Your task to perform on an android device: Find coffee shops on Maps Image 0: 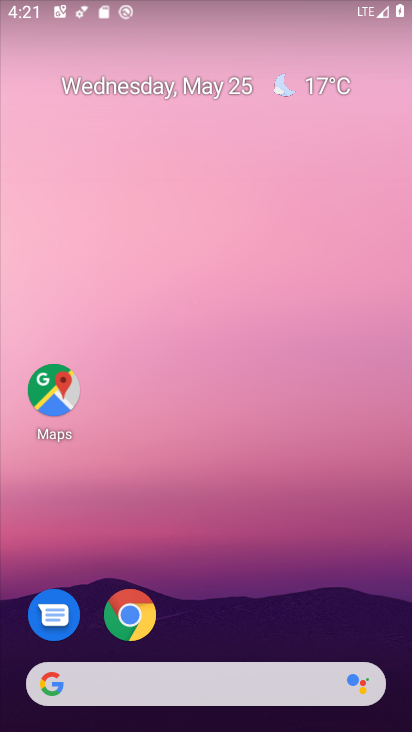
Step 0: click (54, 390)
Your task to perform on an android device: Find coffee shops on Maps Image 1: 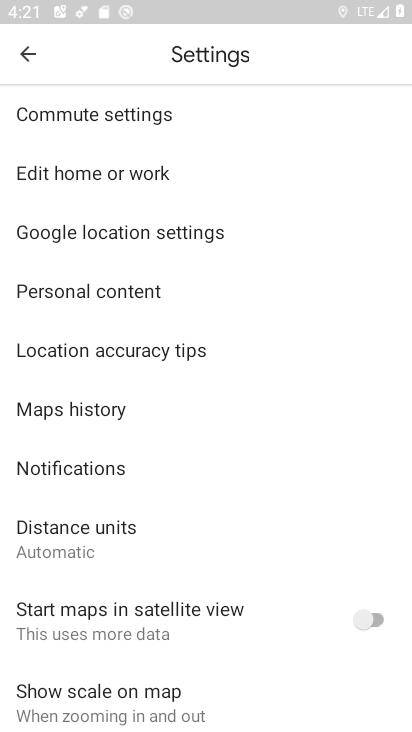
Step 1: click (21, 34)
Your task to perform on an android device: Find coffee shops on Maps Image 2: 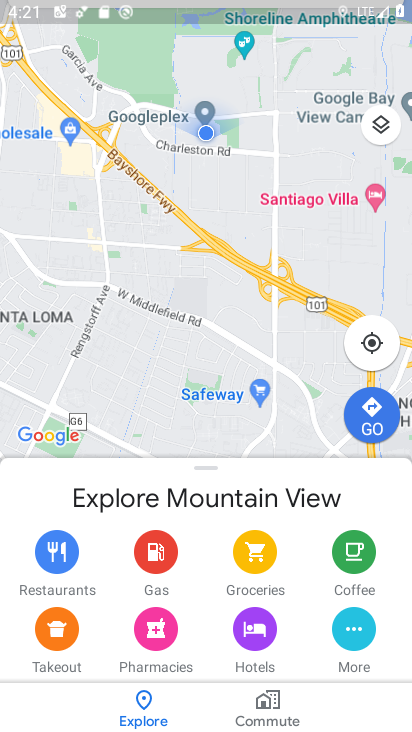
Step 2: click (21, 54)
Your task to perform on an android device: Find coffee shops on Maps Image 3: 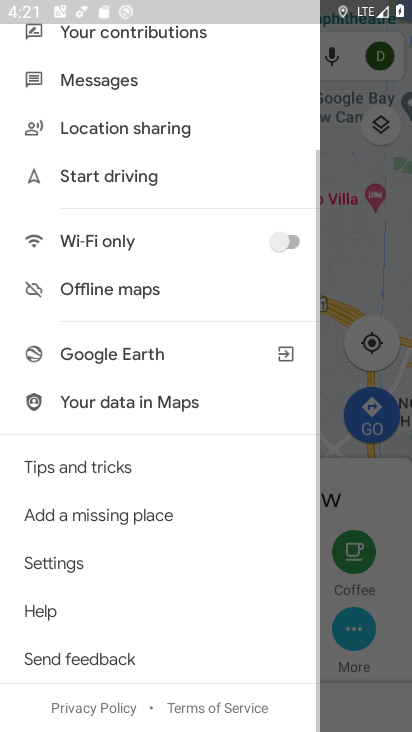
Step 3: click (354, 157)
Your task to perform on an android device: Find coffee shops on Maps Image 4: 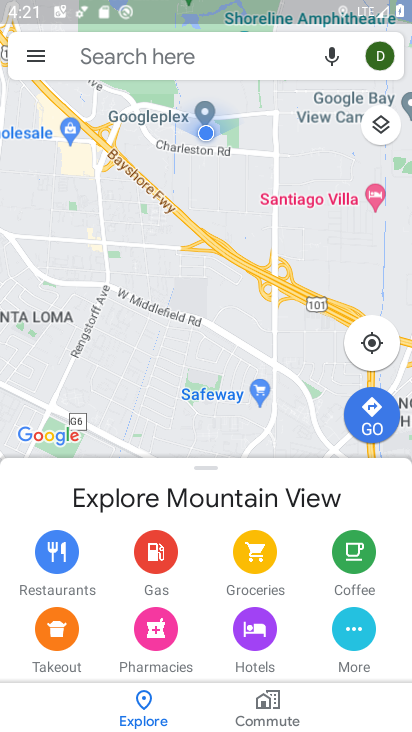
Step 4: click (222, 58)
Your task to perform on an android device: Find coffee shops on Maps Image 5: 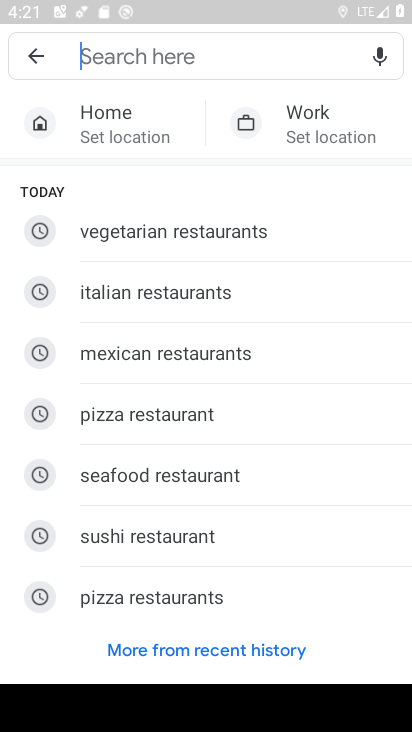
Step 5: drag from (258, 540) to (251, 223)
Your task to perform on an android device: Find coffee shops on Maps Image 6: 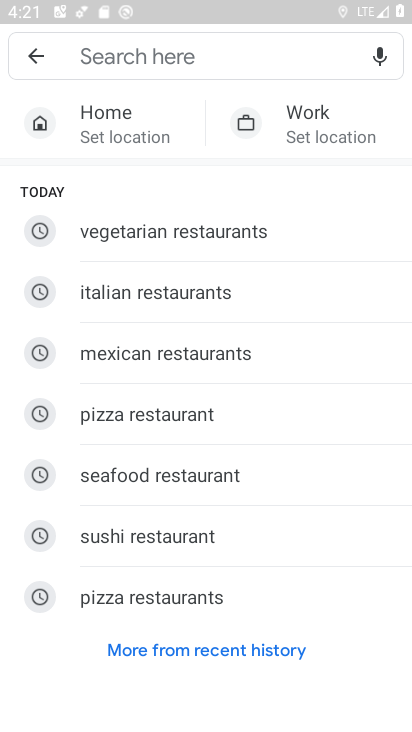
Step 6: click (162, 58)
Your task to perform on an android device: Find coffee shops on Maps Image 7: 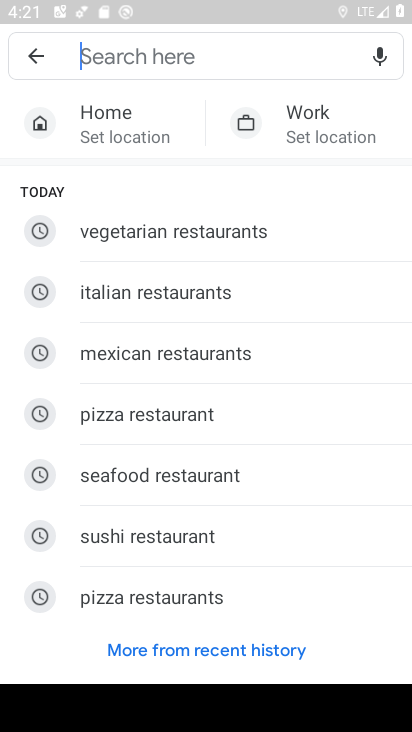
Step 7: type "coffee shops"
Your task to perform on an android device: Find coffee shops on Maps Image 8: 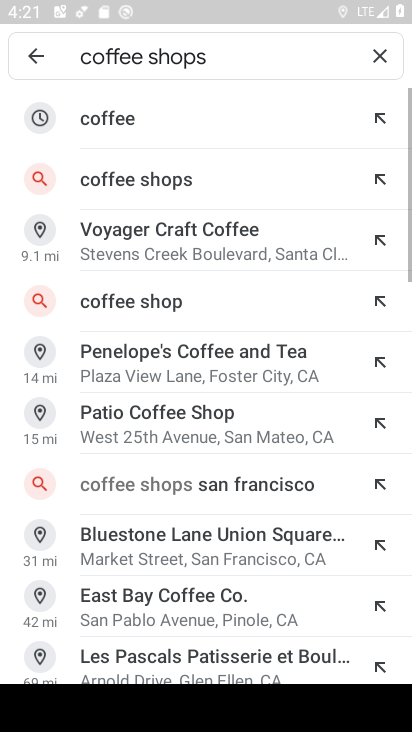
Step 8: click (220, 178)
Your task to perform on an android device: Find coffee shops on Maps Image 9: 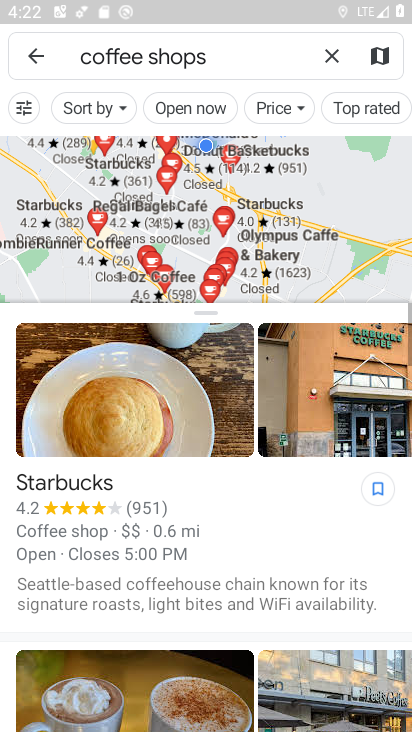
Step 9: task complete